Your task to perform on an android device: turn on notifications settings in the gmail app Image 0: 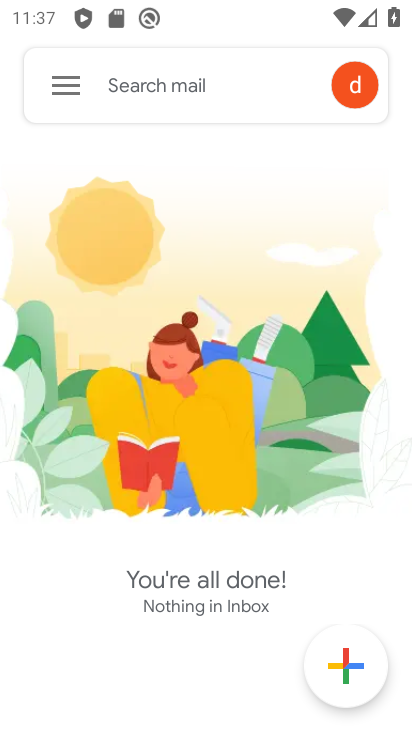
Step 0: press home button
Your task to perform on an android device: turn on notifications settings in the gmail app Image 1: 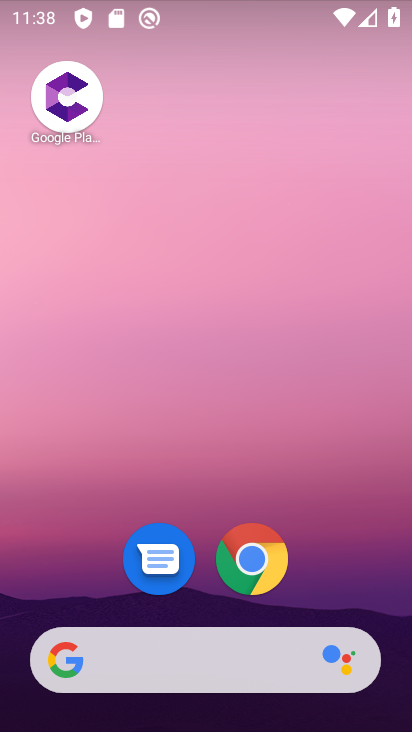
Step 1: drag from (365, 555) to (278, 117)
Your task to perform on an android device: turn on notifications settings in the gmail app Image 2: 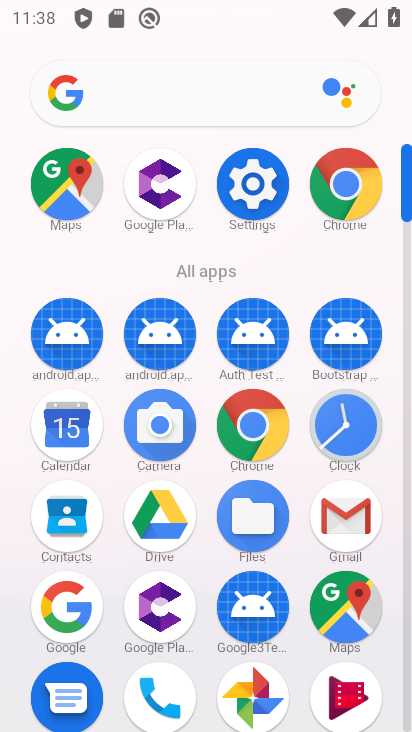
Step 2: click (355, 515)
Your task to perform on an android device: turn on notifications settings in the gmail app Image 3: 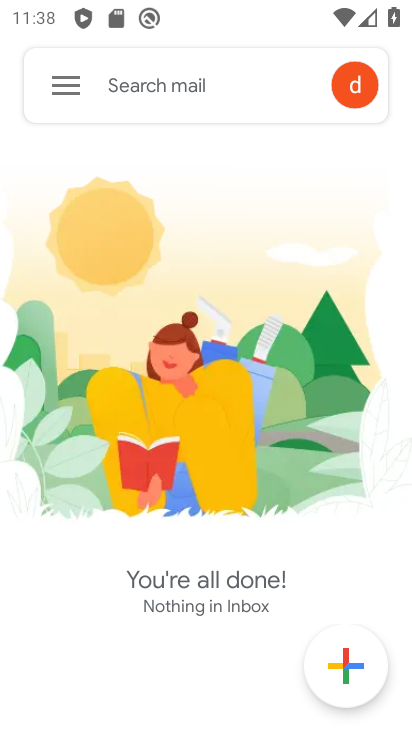
Step 3: click (56, 104)
Your task to perform on an android device: turn on notifications settings in the gmail app Image 4: 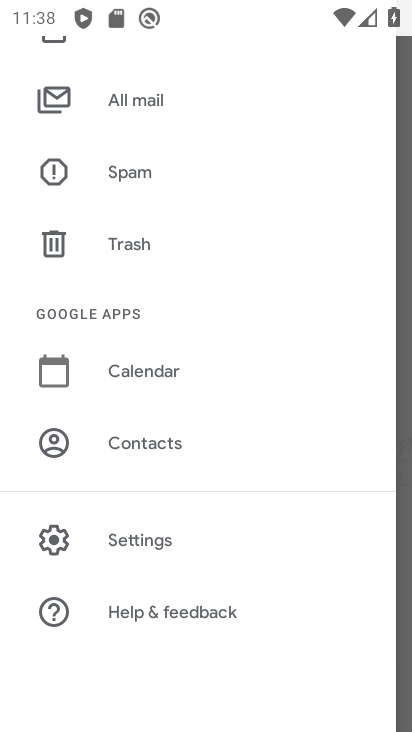
Step 4: drag from (191, 241) to (195, 526)
Your task to perform on an android device: turn on notifications settings in the gmail app Image 5: 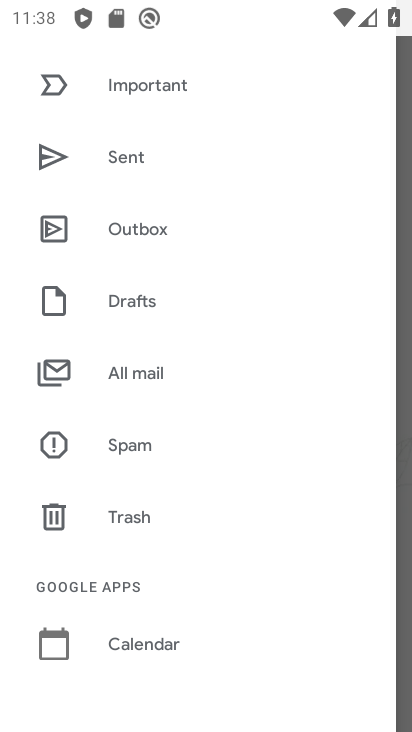
Step 5: drag from (174, 269) to (195, 564)
Your task to perform on an android device: turn on notifications settings in the gmail app Image 6: 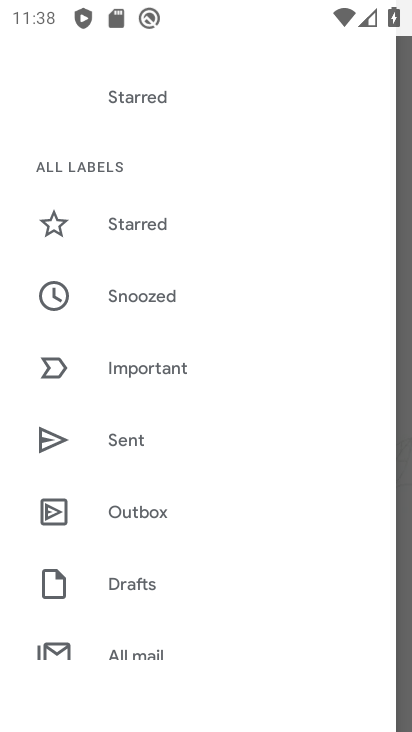
Step 6: drag from (189, 259) to (191, 599)
Your task to perform on an android device: turn on notifications settings in the gmail app Image 7: 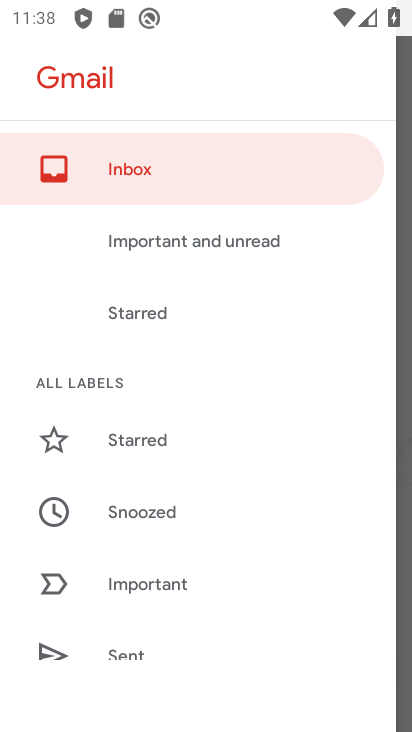
Step 7: drag from (181, 638) to (215, 401)
Your task to perform on an android device: turn on notifications settings in the gmail app Image 8: 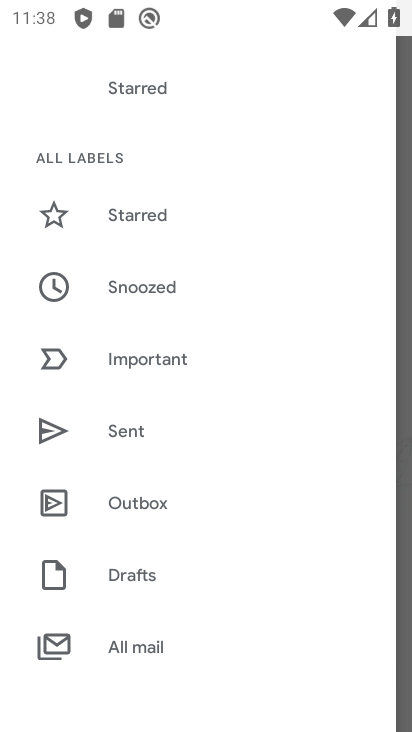
Step 8: drag from (218, 633) to (224, 333)
Your task to perform on an android device: turn on notifications settings in the gmail app Image 9: 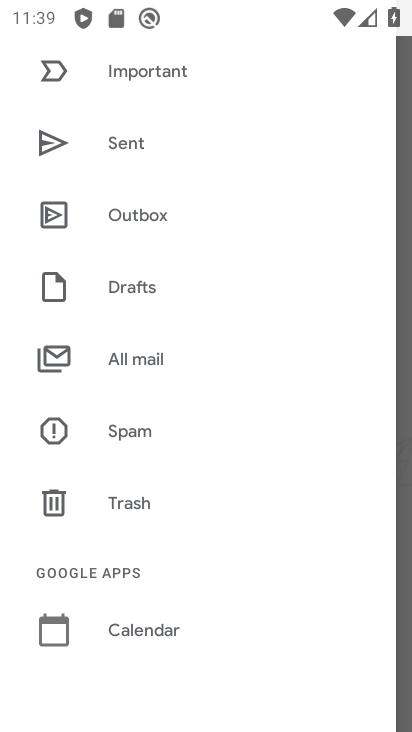
Step 9: drag from (183, 204) to (194, 562)
Your task to perform on an android device: turn on notifications settings in the gmail app Image 10: 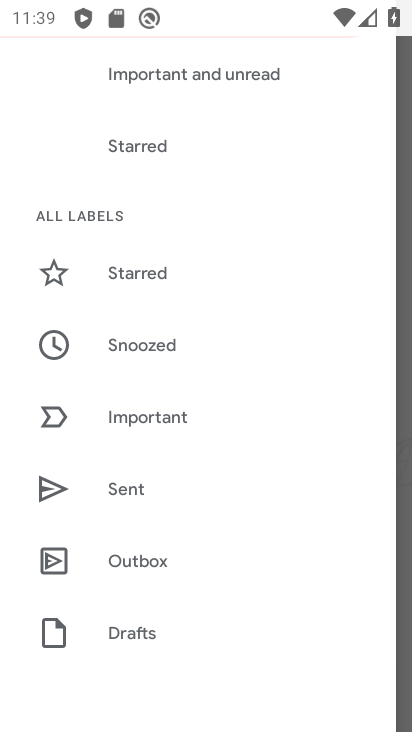
Step 10: drag from (199, 305) to (199, 586)
Your task to perform on an android device: turn on notifications settings in the gmail app Image 11: 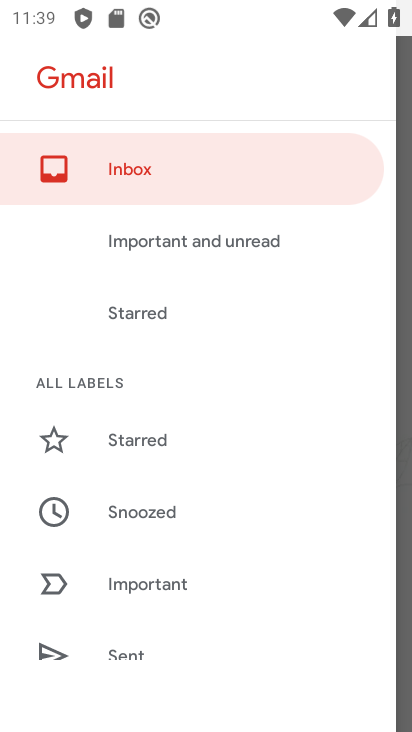
Step 11: drag from (169, 626) to (190, 206)
Your task to perform on an android device: turn on notifications settings in the gmail app Image 12: 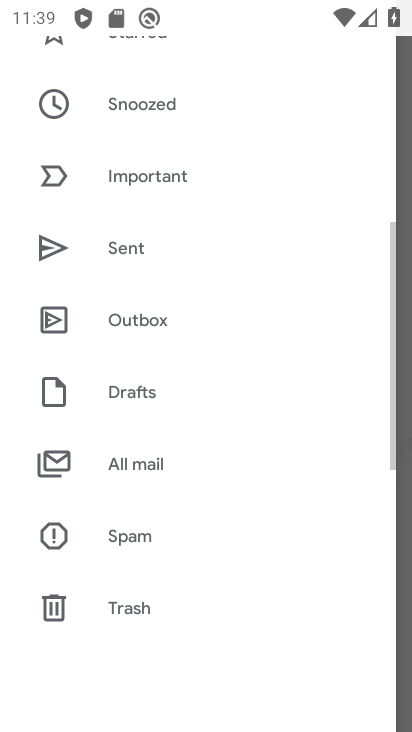
Step 12: drag from (172, 621) to (188, 251)
Your task to perform on an android device: turn on notifications settings in the gmail app Image 13: 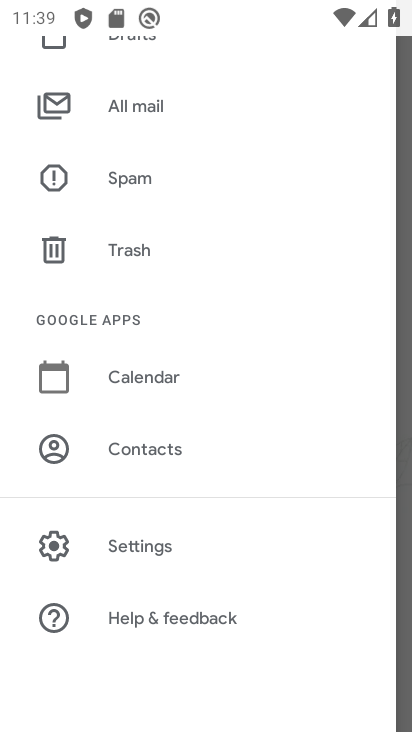
Step 13: click (133, 521)
Your task to perform on an android device: turn on notifications settings in the gmail app Image 14: 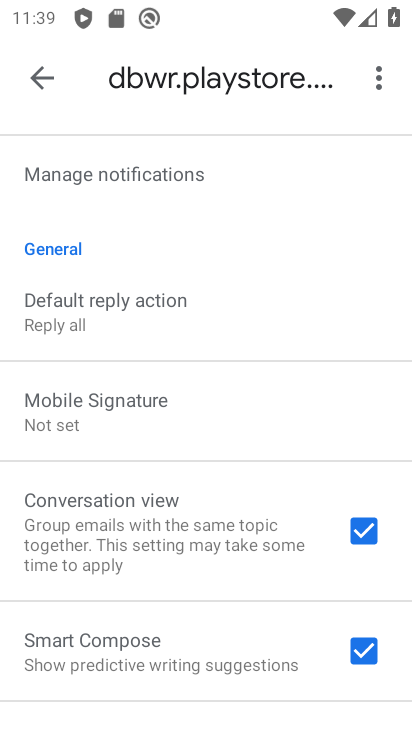
Step 14: drag from (161, 514) to (206, 253)
Your task to perform on an android device: turn on notifications settings in the gmail app Image 15: 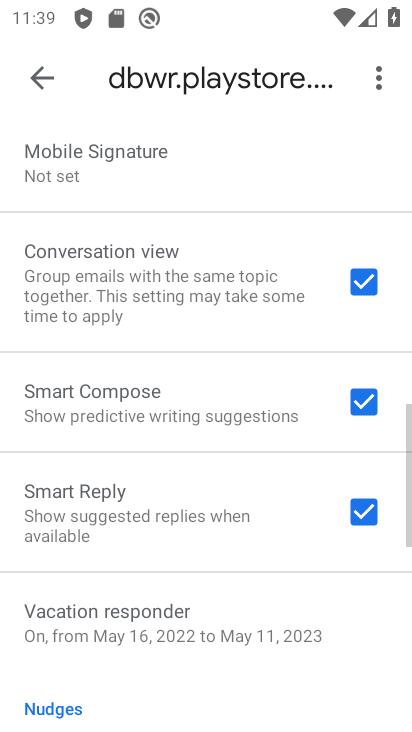
Step 15: drag from (205, 257) to (212, 632)
Your task to perform on an android device: turn on notifications settings in the gmail app Image 16: 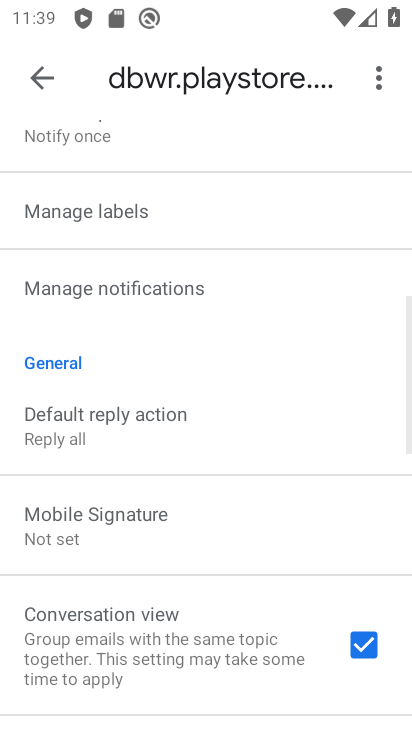
Step 16: drag from (218, 270) to (237, 589)
Your task to perform on an android device: turn on notifications settings in the gmail app Image 17: 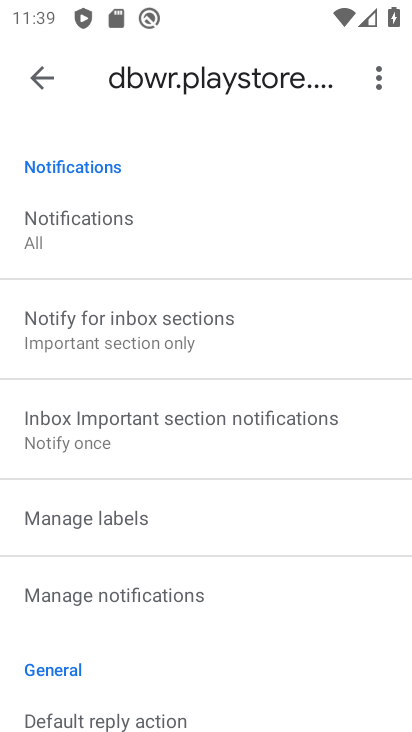
Step 17: drag from (231, 199) to (242, 518)
Your task to perform on an android device: turn on notifications settings in the gmail app Image 18: 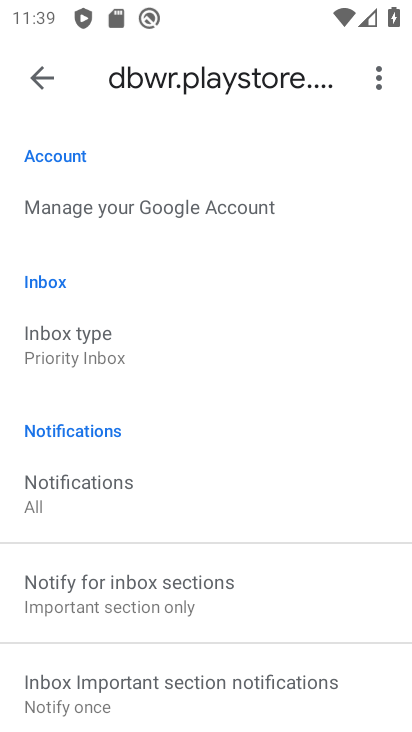
Step 18: click (90, 490)
Your task to perform on an android device: turn on notifications settings in the gmail app Image 19: 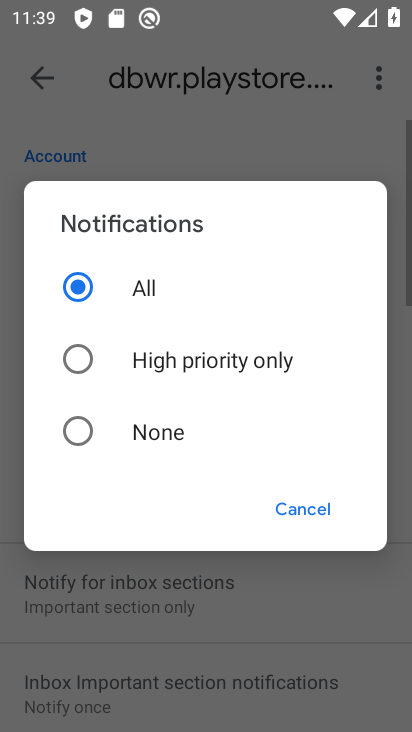
Step 19: task complete